Your task to perform on an android device: Open Youtube and go to "Your channel" Image 0: 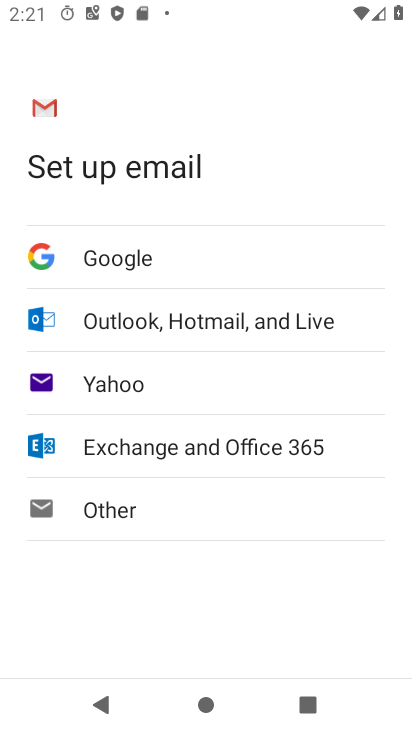
Step 0: press home button
Your task to perform on an android device: Open Youtube and go to "Your channel" Image 1: 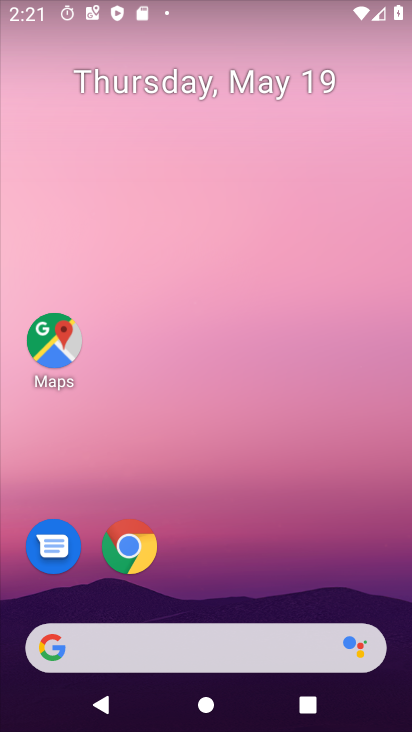
Step 1: drag from (153, 607) to (326, 43)
Your task to perform on an android device: Open Youtube and go to "Your channel" Image 2: 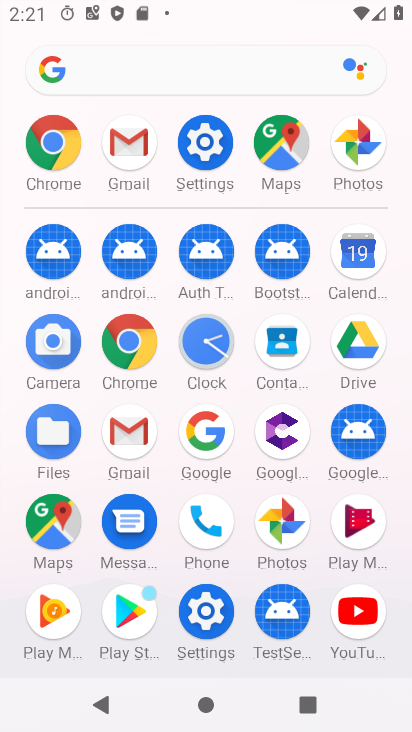
Step 2: click (352, 613)
Your task to perform on an android device: Open Youtube and go to "Your channel" Image 3: 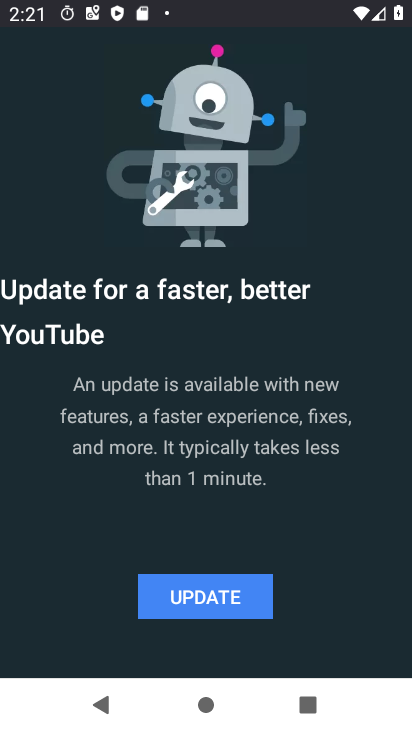
Step 3: click (184, 597)
Your task to perform on an android device: Open Youtube and go to "Your channel" Image 4: 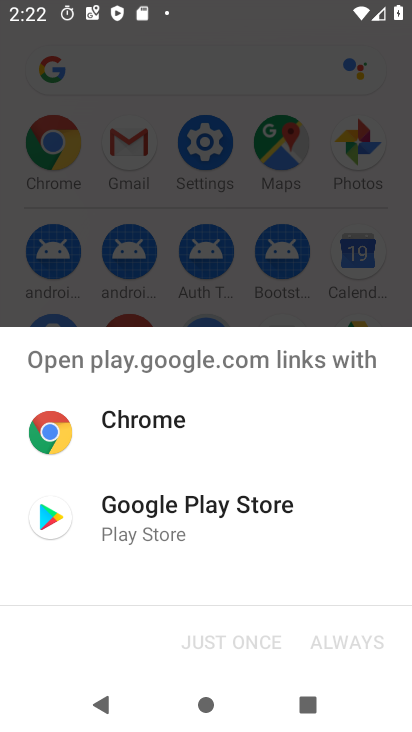
Step 4: click (184, 597)
Your task to perform on an android device: Open Youtube and go to "Your channel" Image 5: 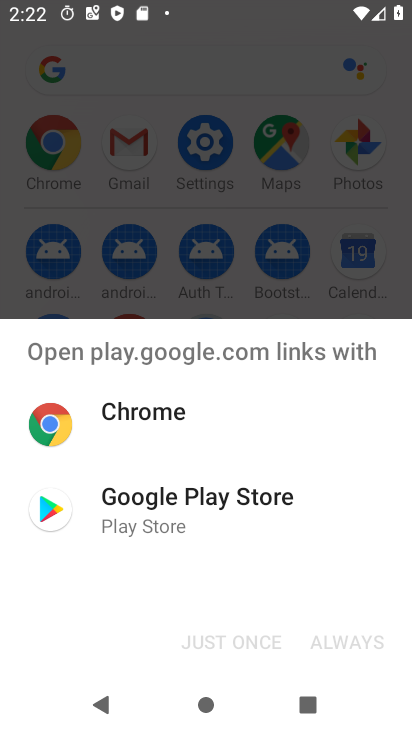
Step 5: click (190, 525)
Your task to perform on an android device: Open Youtube and go to "Your channel" Image 6: 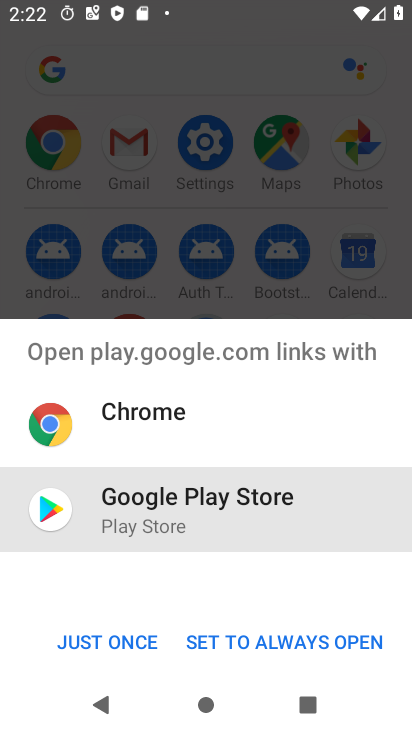
Step 6: click (131, 631)
Your task to perform on an android device: Open Youtube and go to "Your channel" Image 7: 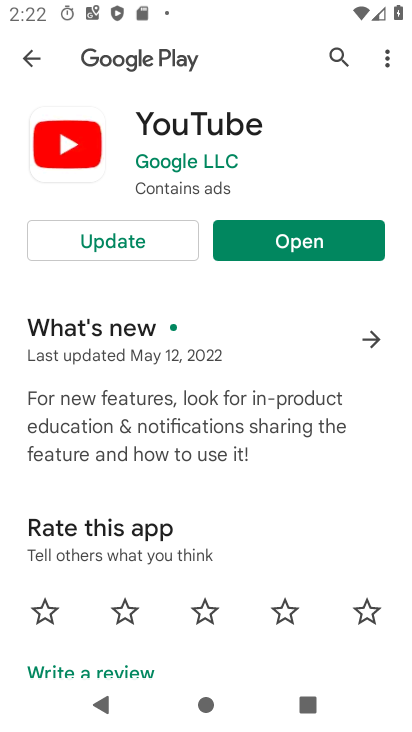
Step 7: click (148, 249)
Your task to perform on an android device: Open Youtube and go to "Your channel" Image 8: 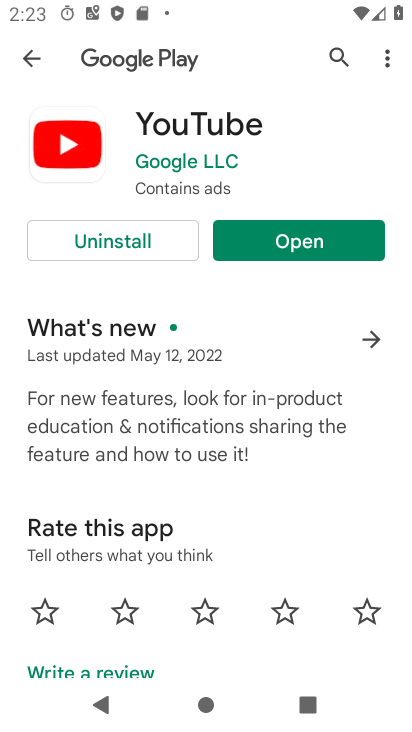
Step 8: click (289, 229)
Your task to perform on an android device: Open Youtube and go to "Your channel" Image 9: 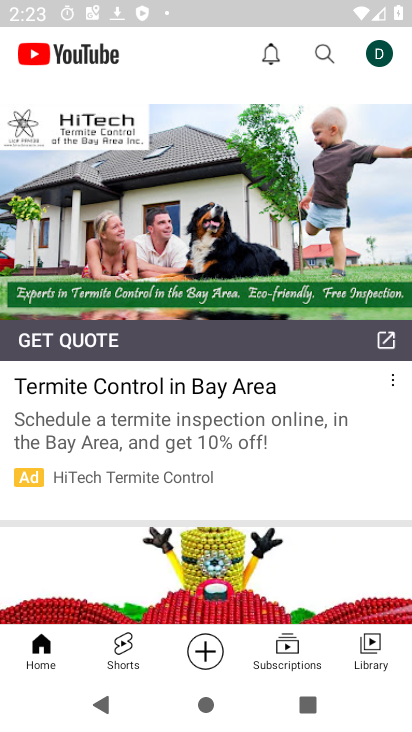
Step 9: click (327, 60)
Your task to perform on an android device: Open Youtube and go to "Your channel" Image 10: 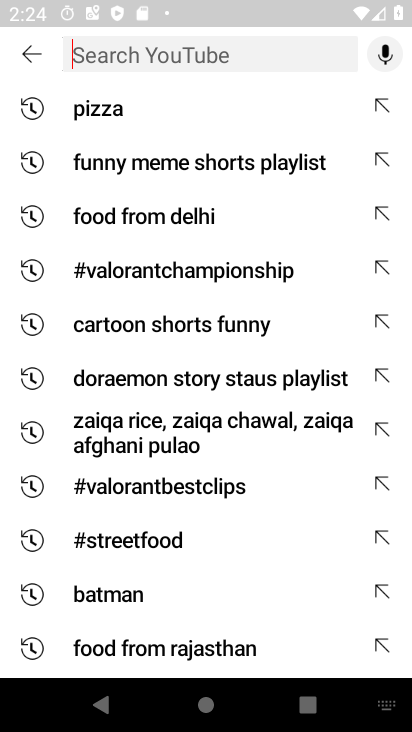
Step 10: type "your channel"
Your task to perform on an android device: Open Youtube and go to "Your channel" Image 11: 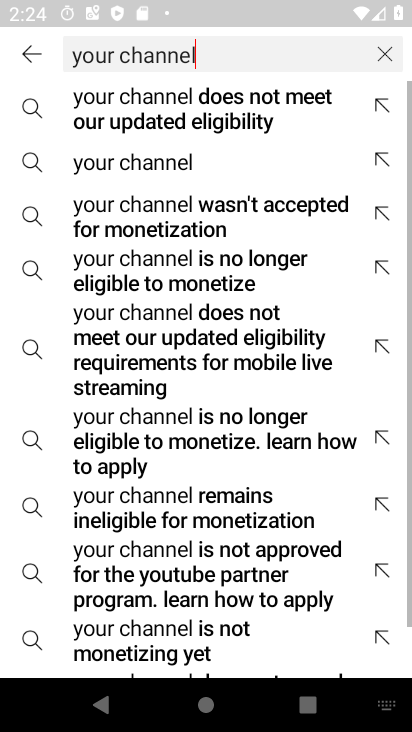
Step 11: type ""
Your task to perform on an android device: Open Youtube and go to "Your channel" Image 12: 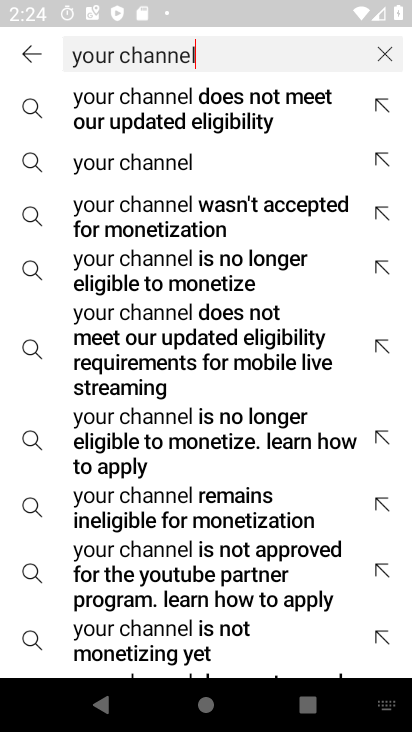
Step 12: click (207, 172)
Your task to perform on an android device: Open Youtube and go to "Your channel" Image 13: 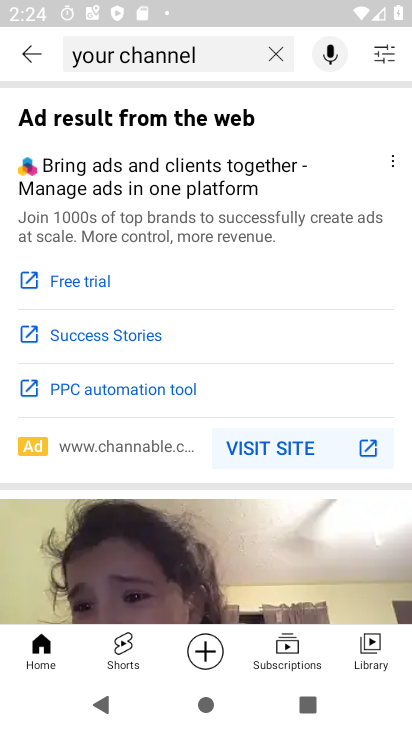
Step 13: task complete